Your task to perform on an android device: Go to Amazon Image 0: 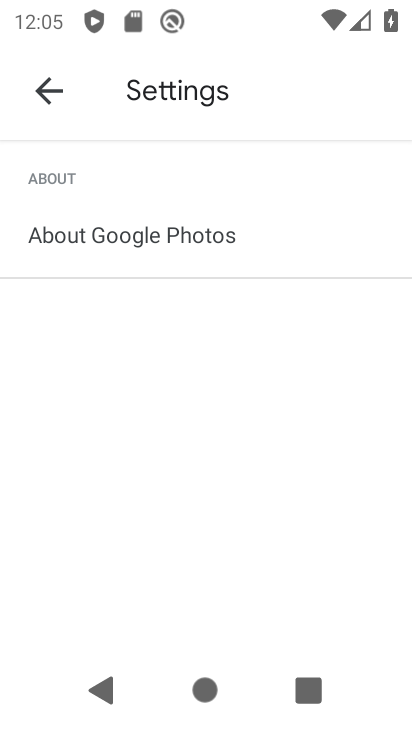
Step 0: press home button
Your task to perform on an android device: Go to Amazon Image 1: 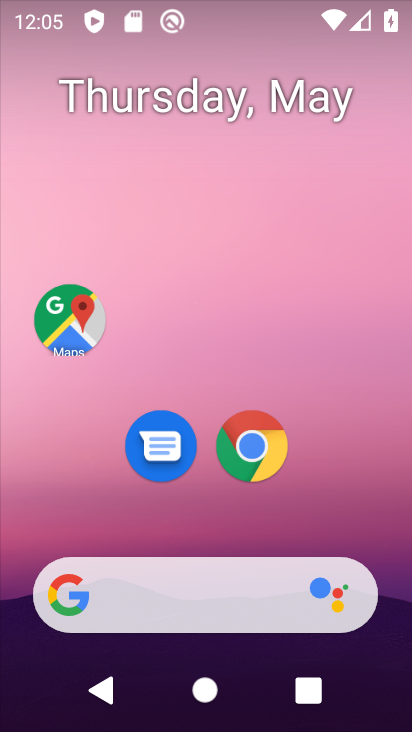
Step 1: click (260, 437)
Your task to perform on an android device: Go to Amazon Image 2: 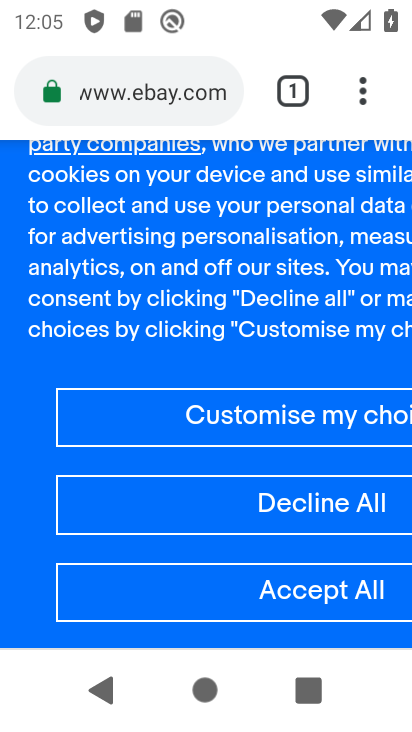
Step 2: click (172, 82)
Your task to perform on an android device: Go to Amazon Image 3: 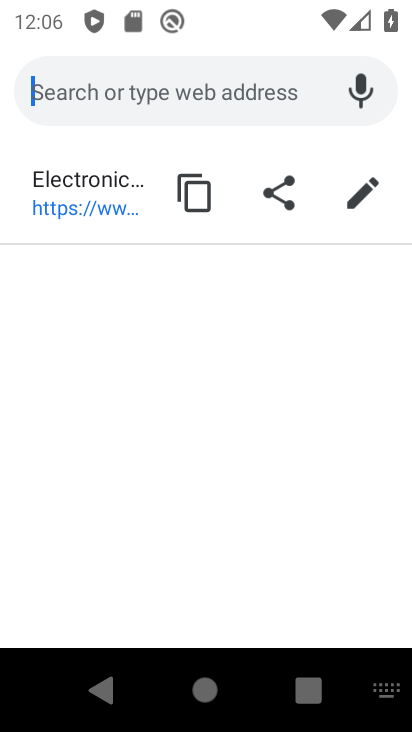
Step 3: type " Amazon"
Your task to perform on an android device: Go to Amazon Image 4: 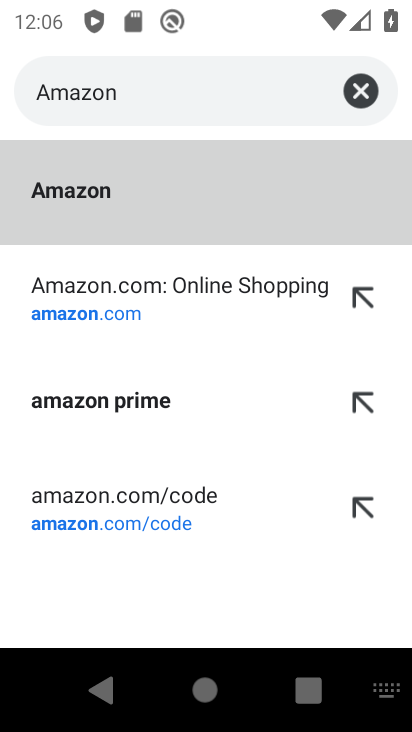
Step 4: click (139, 207)
Your task to perform on an android device: Go to Amazon Image 5: 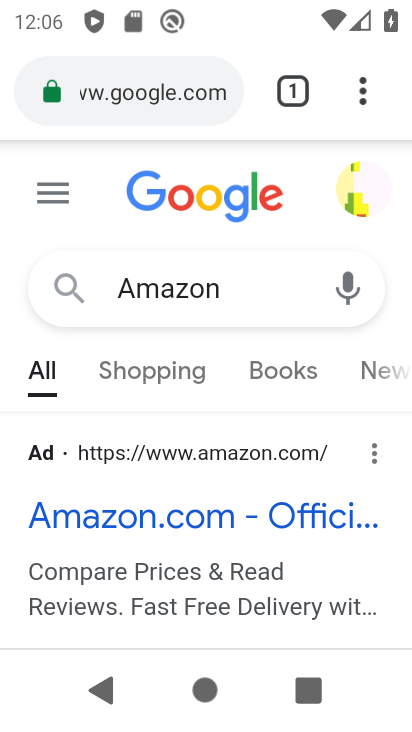
Step 5: click (150, 501)
Your task to perform on an android device: Go to Amazon Image 6: 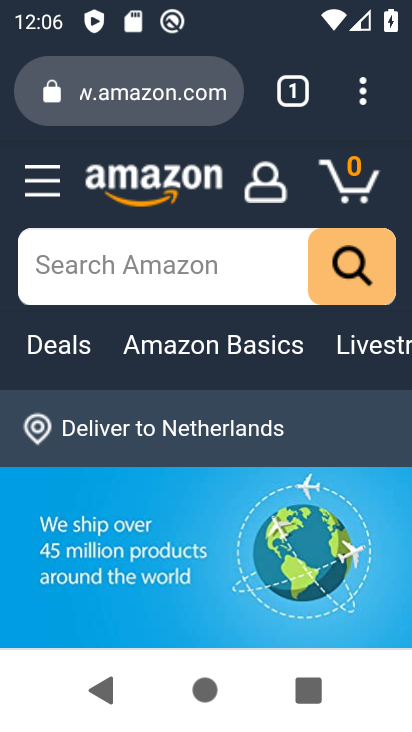
Step 6: task complete